Your task to perform on an android device: turn notification dots on Image 0: 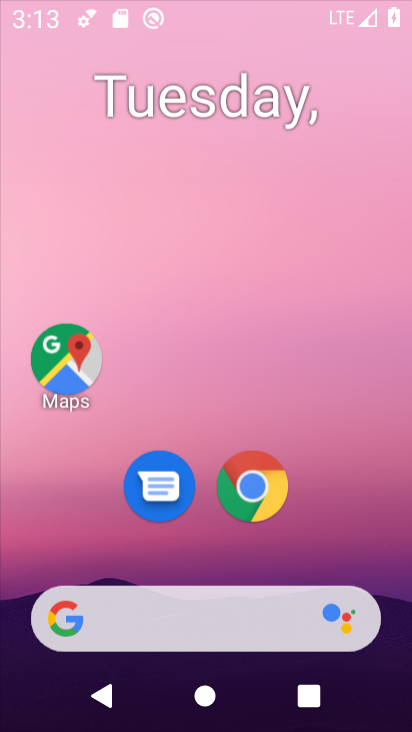
Step 0: press home button
Your task to perform on an android device: turn notification dots on Image 1: 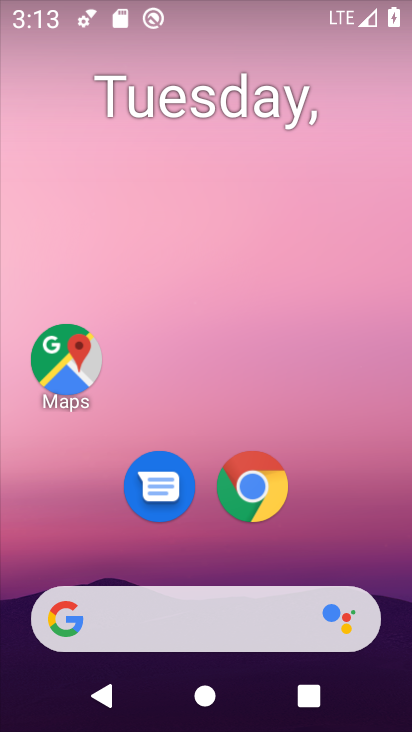
Step 1: drag from (205, 552) to (255, 19)
Your task to perform on an android device: turn notification dots on Image 2: 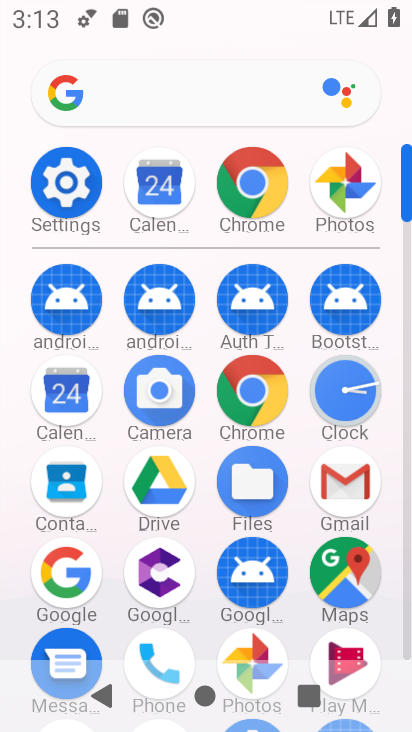
Step 2: click (71, 179)
Your task to perform on an android device: turn notification dots on Image 3: 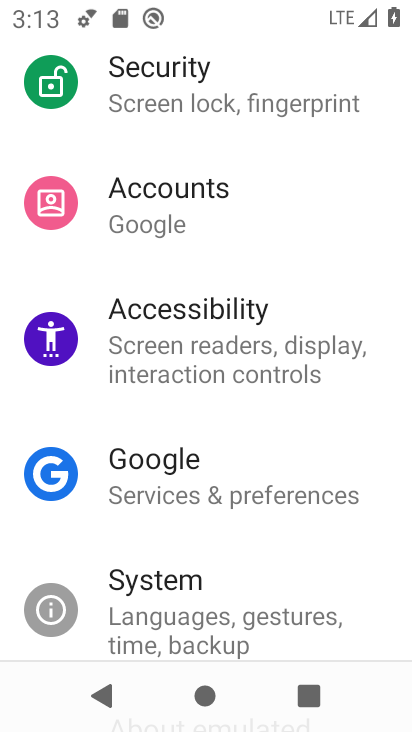
Step 3: drag from (201, 72) to (197, 619)
Your task to perform on an android device: turn notification dots on Image 4: 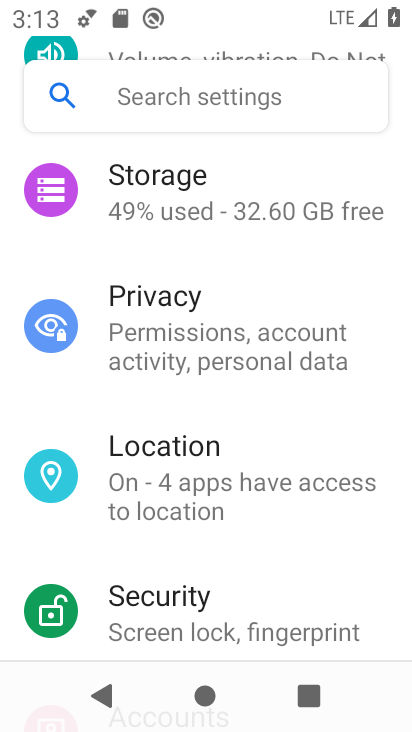
Step 4: drag from (226, 183) to (177, 716)
Your task to perform on an android device: turn notification dots on Image 5: 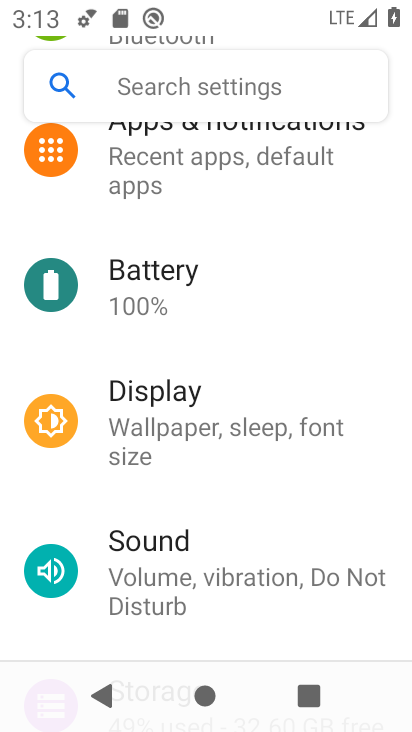
Step 5: click (211, 166)
Your task to perform on an android device: turn notification dots on Image 6: 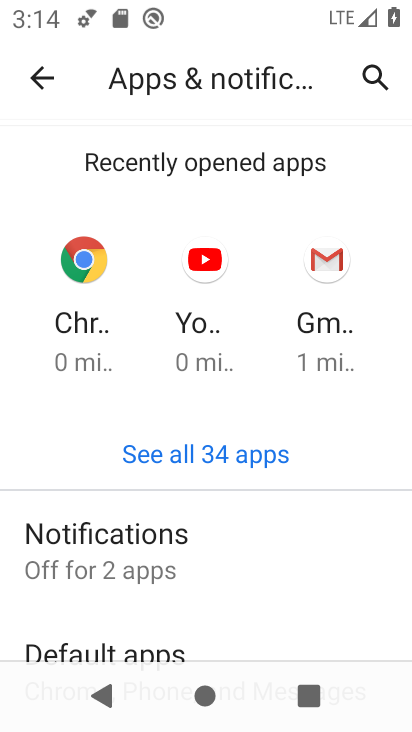
Step 6: click (198, 551)
Your task to perform on an android device: turn notification dots on Image 7: 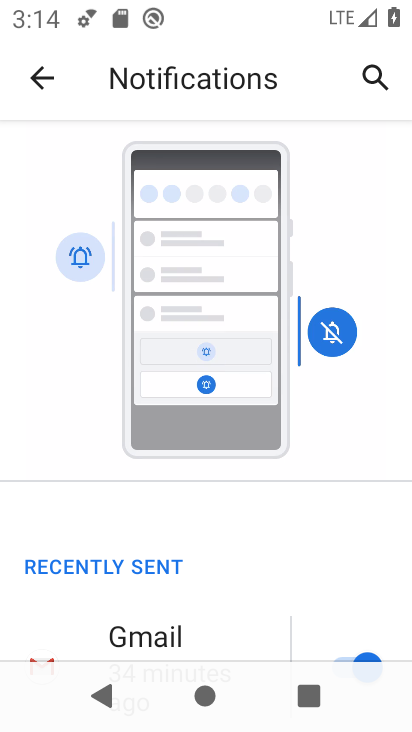
Step 7: drag from (215, 609) to (237, 130)
Your task to perform on an android device: turn notification dots on Image 8: 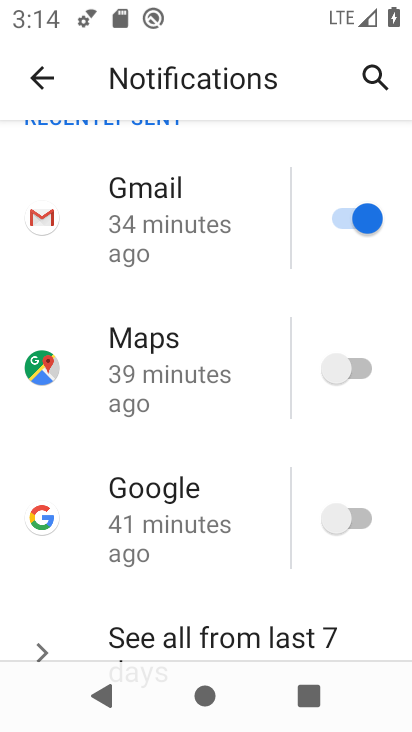
Step 8: drag from (236, 588) to (291, 92)
Your task to perform on an android device: turn notification dots on Image 9: 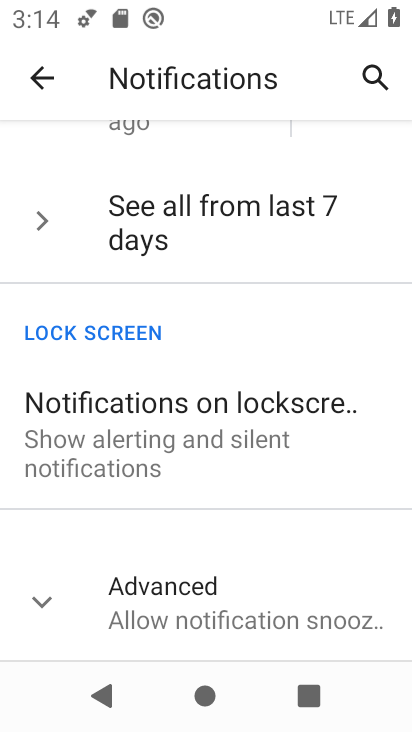
Step 9: click (47, 605)
Your task to perform on an android device: turn notification dots on Image 10: 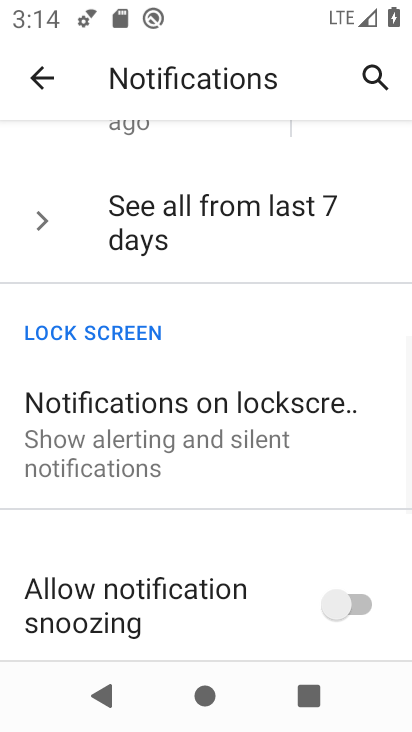
Step 10: task complete